Your task to perform on an android device: What's the weather today? Image 0: 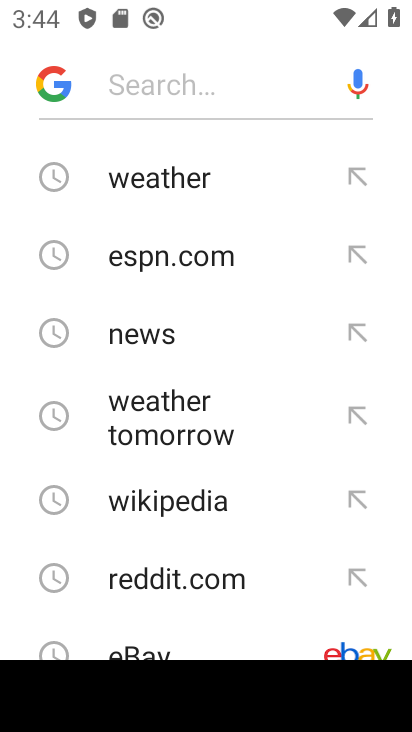
Step 0: type "what's the weather today"
Your task to perform on an android device: What's the weather today? Image 1: 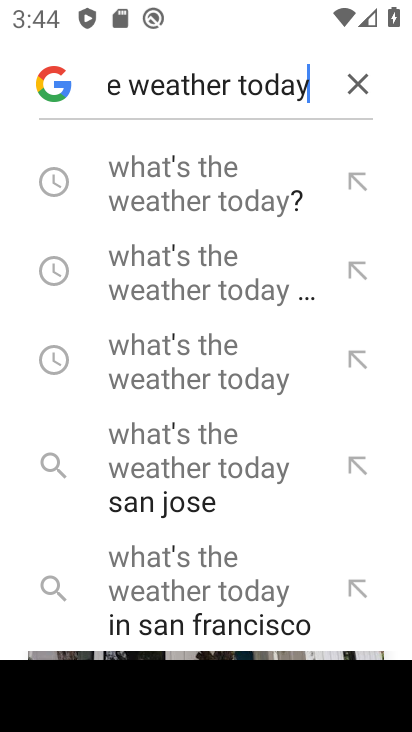
Step 1: click (226, 205)
Your task to perform on an android device: What's the weather today? Image 2: 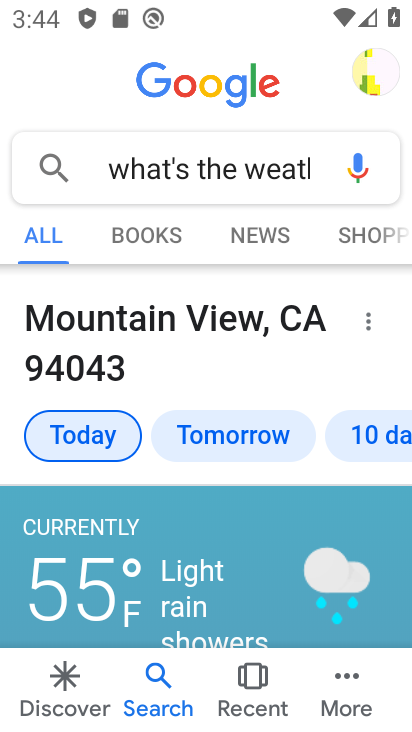
Step 2: task complete